Your task to perform on an android device: Open CNN.com Image 0: 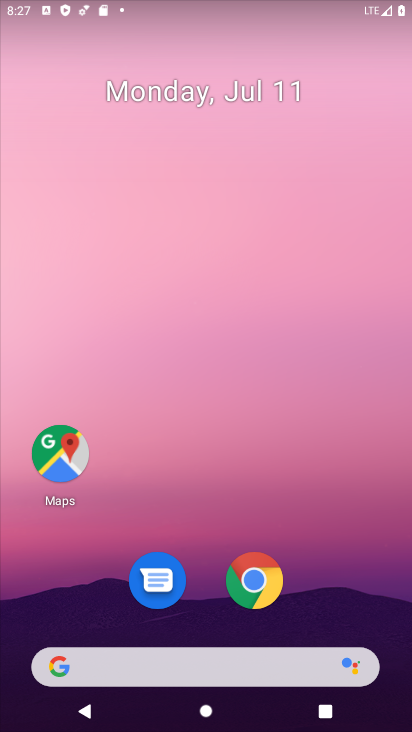
Step 0: click (258, 673)
Your task to perform on an android device: Open CNN.com Image 1: 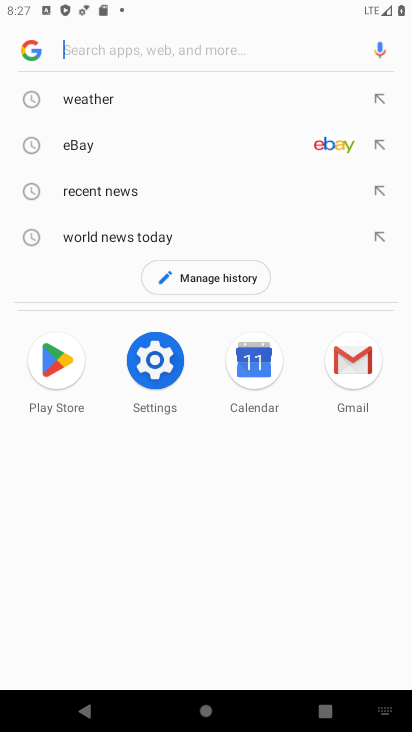
Step 1: type "cnn.com"
Your task to perform on an android device: Open CNN.com Image 2: 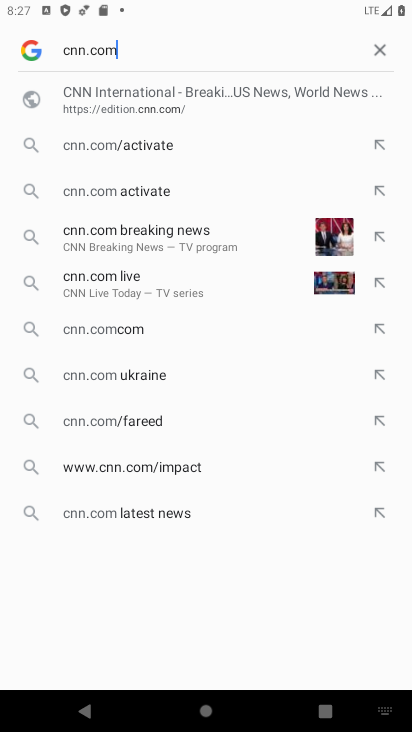
Step 2: click (122, 88)
Your task to perform on an android device: Open CNN.com Image 3: 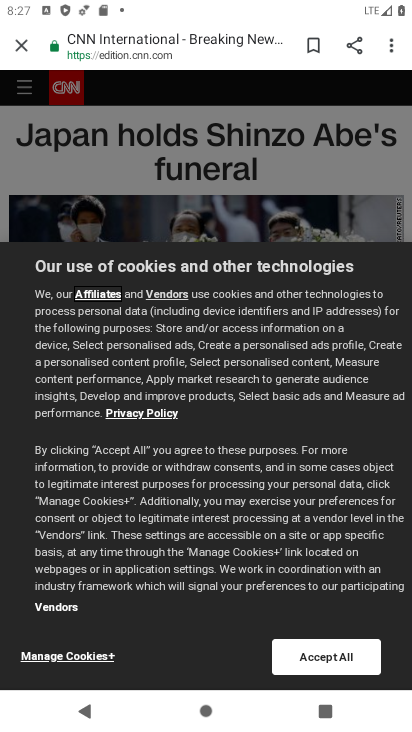
Step 3: task complete